Your task to perform on an android device: Open Yahoo.com Image 0: 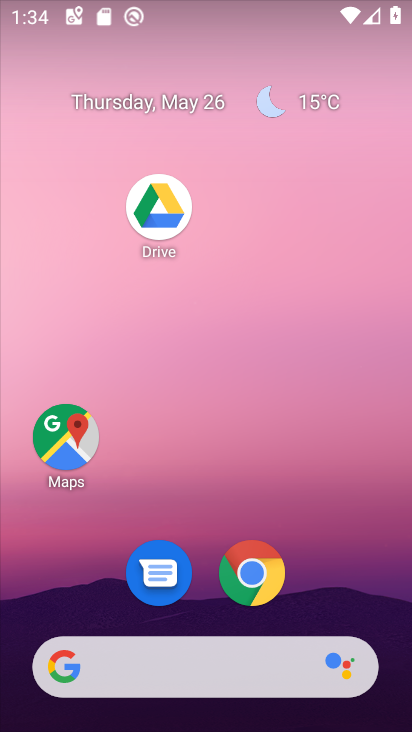
Step 0: click (275, 568)
Your task to perform on an android device: Open Yahoo.com Image 1: 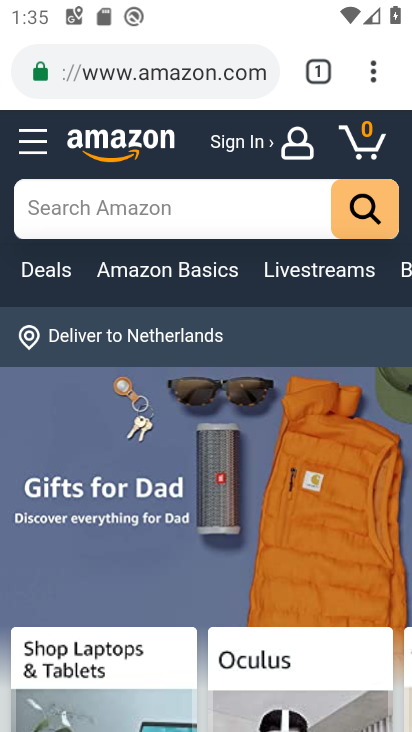
Step 1: click (328, 73)
Your task to perform on an android device: Open Yahoo.com Image 2: 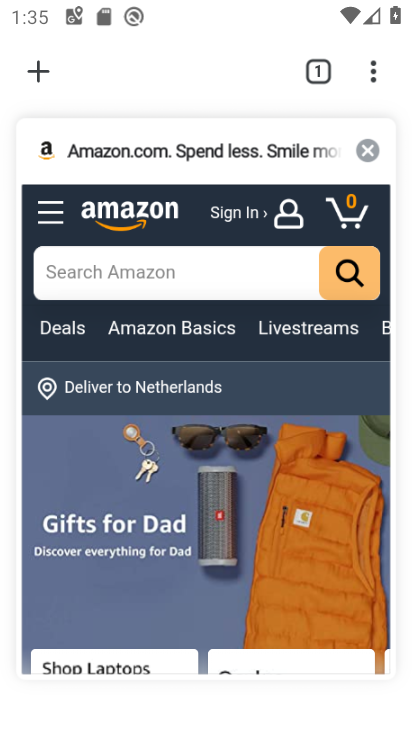
Step 2: click (366, 147)
Your task to perform on an android device: Open Yahoo.com Image 3: 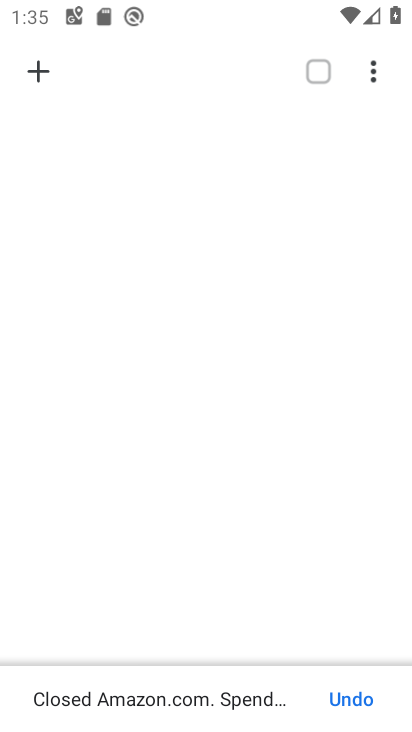
Step 3: click (33, 62)
Your task to perform on an android device: Open Yahoo.com Image 4: 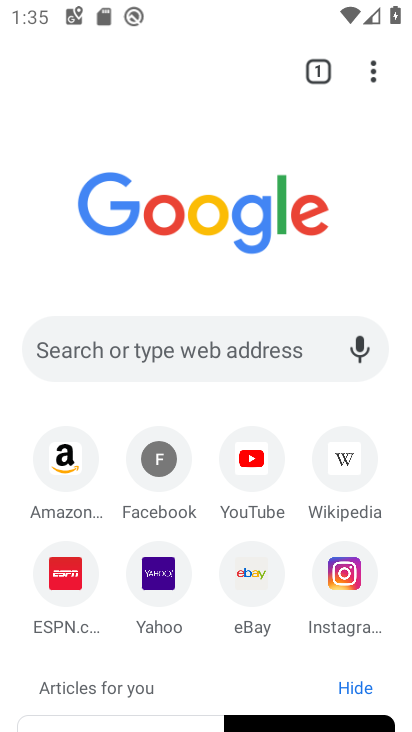
Step 4: click (148, 566)
Your task to perform on an android device: Open Yahoo.com Image 5: 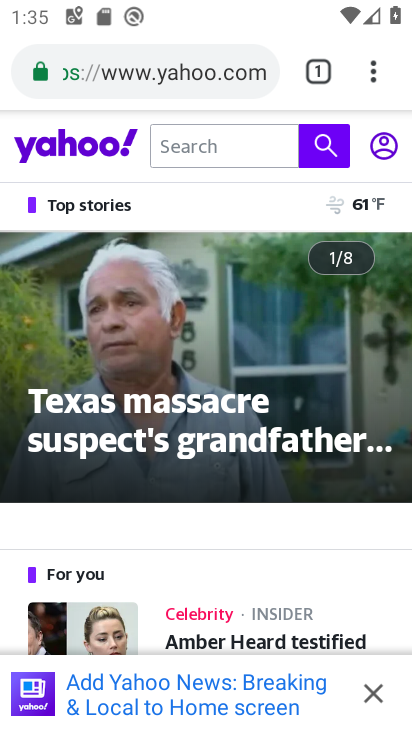
Step 5: task complete